Your task to perform on an android device: empty trash in the gmail app Image 0: 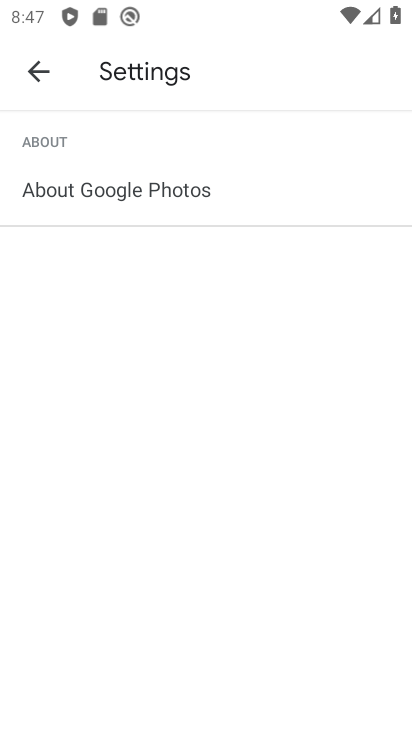
Step 0: press back button
Your task to perform on an android device: empty trash in the gmail app Image 1: 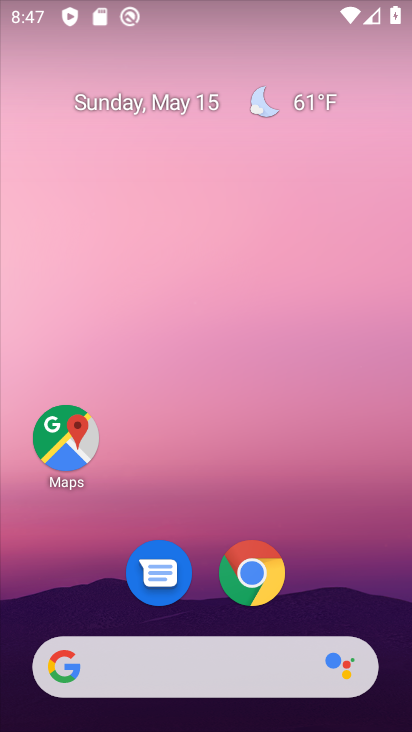
Step 1: drag from (47, 569) to (231, 144)
Your task to perform on an android device: empty trash in the gmail app Image 2: 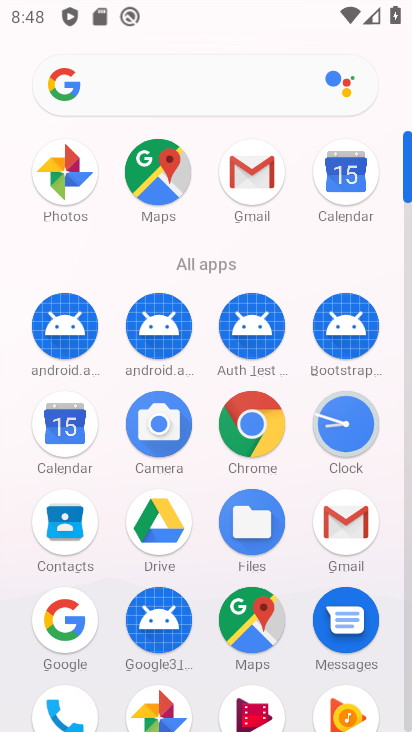
Step 2: click (229, 179)
Your task to perform on an android device: empty trash in the gmail app Image 3: 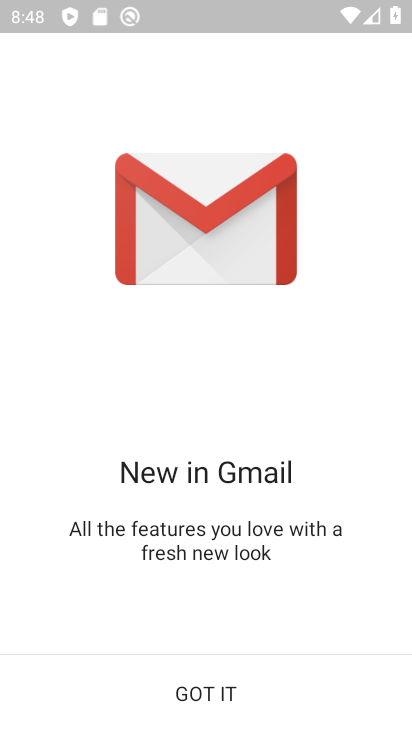
Step 3: click (184, 694)
Your task to perform on an android device: empty trash in the gmail app Image 4: 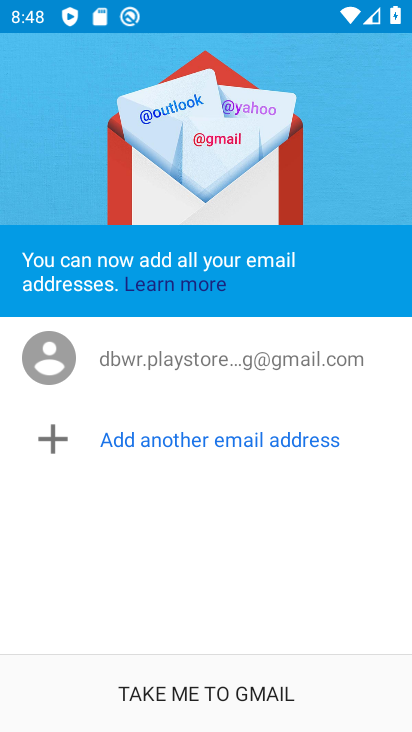
Step 4: click (148, 691)
Your task to perform on an android device: empty trash in the gmail app Image 5: 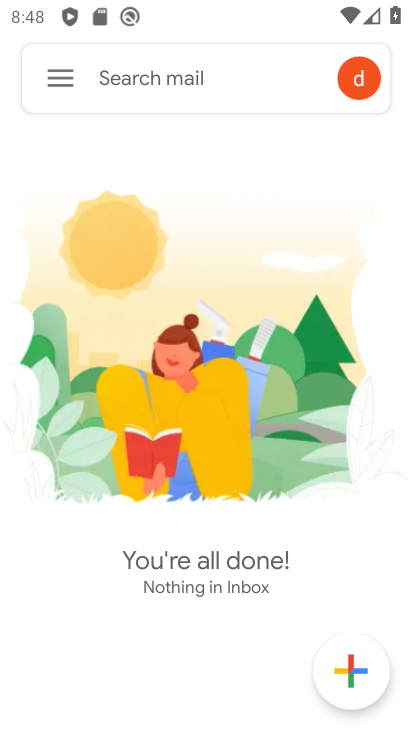
Step 5: click (54, 79)
Your task to perform on an android device: empty trash in the gmail app Image 6: 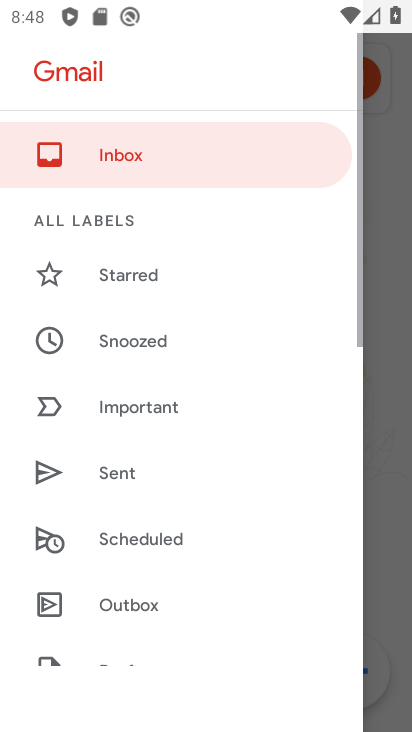
Step 6: drag from (42, 623) to (244, 117)
Your task to perform on an android device: empty trash in the gmail app Image 7: 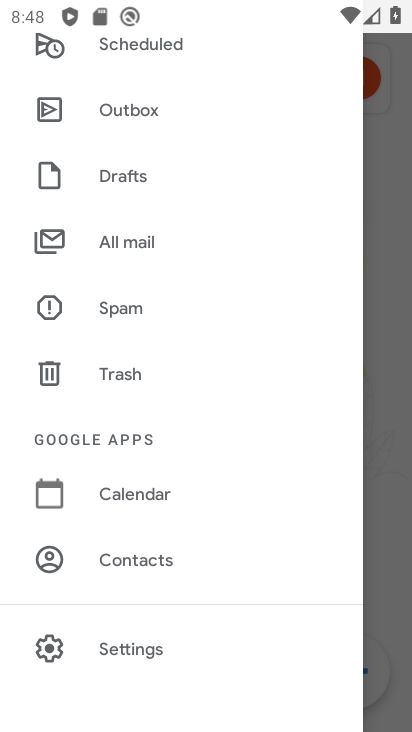
Step 7: click (145, 358)
Your task to perform on an android device: empty trash in the gmail app Image 8: 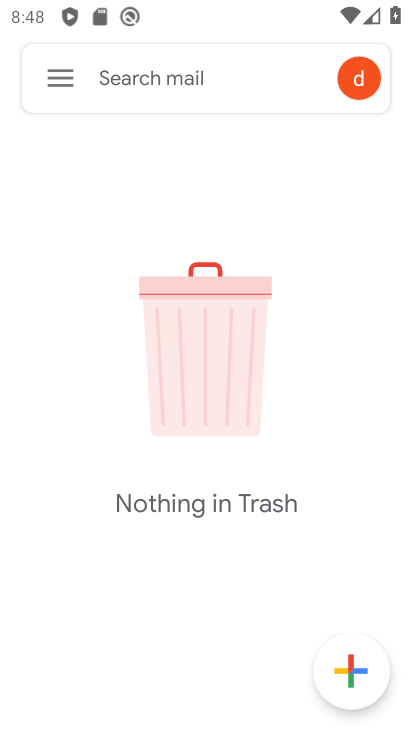
Step 8: task complete